Your task to perform on an android device: turn off improve location accuracy Image 0: 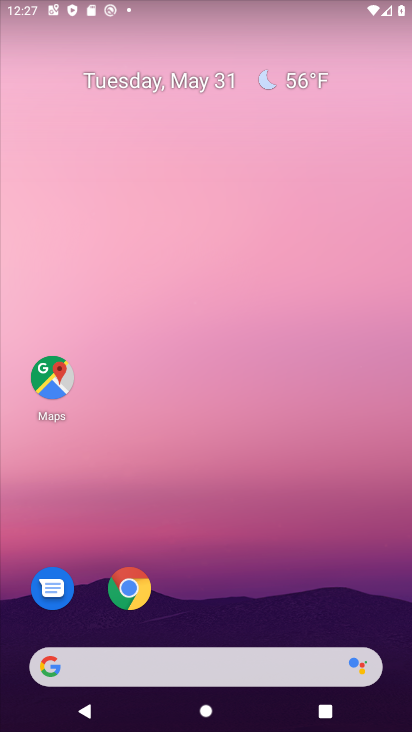
Step 0: drag from (199, 622) to (227, 40)
Your task to perform on an android device: turn off improve location accuracy Image 1: 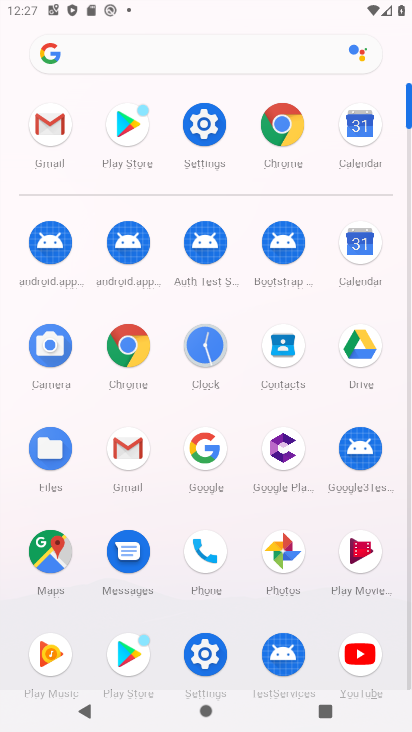
Step 1: click (202, 145)
Your task to perform on an android device: turn off improve location accuracy Image 2: 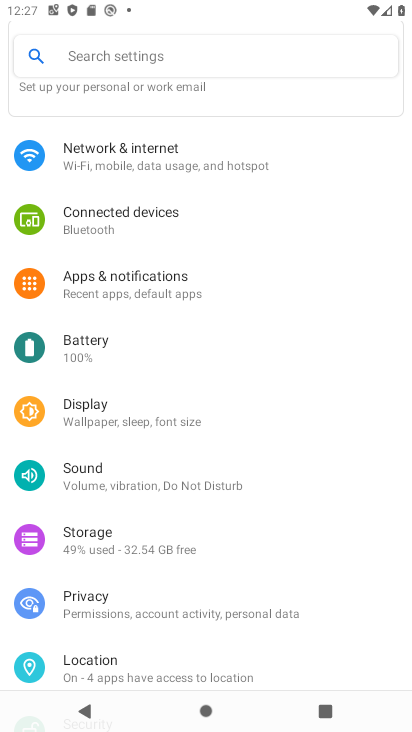
Step 2: drag from (131, 620) to (151, 291)
Your task to perform on an android device: turn off improve location accuracy Image 3: 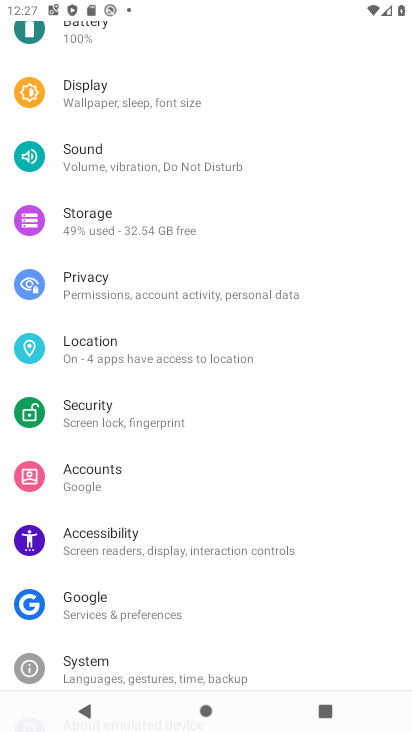
Step 3: click (90, 360)
Your task to perform on an android device: turn off improve location accuracy Image 4: 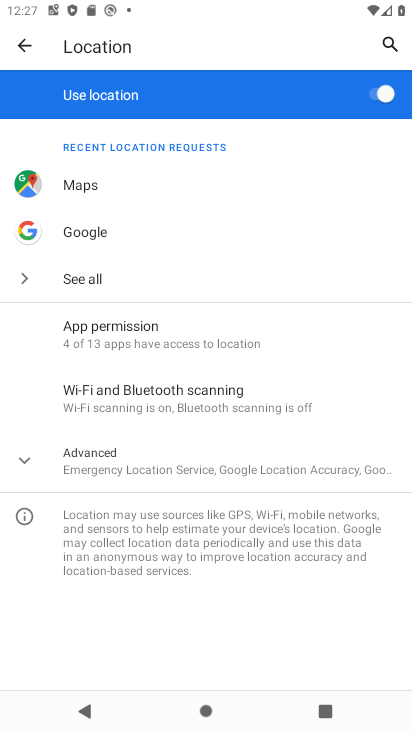
Step 4: click (68, 465)
Your task to perform on an android device: turn off improve location accuracy Image 5: 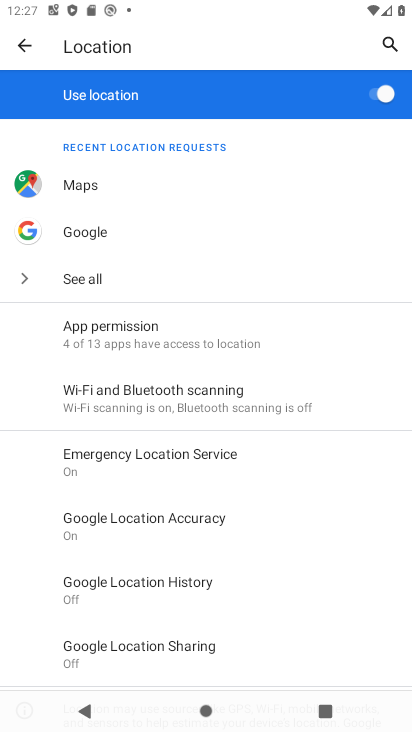
Step 5: click (122, 535)
Your task to perform on an android device: turn off improve location accuracy Image 6: 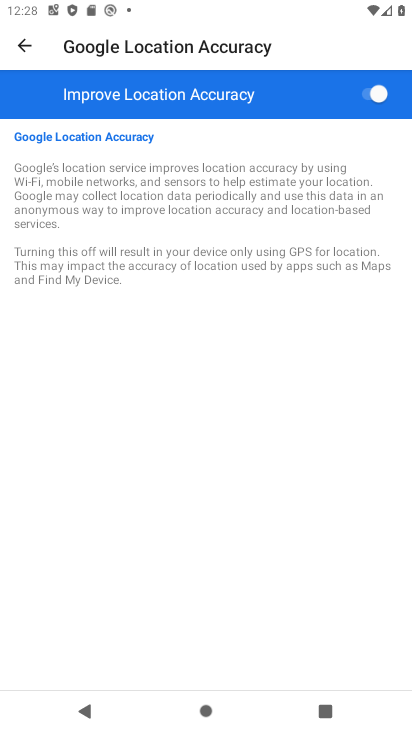
Step 6: click (357, 100)
Your task to perform on an android device: turn off improve location accuracy Image 7: 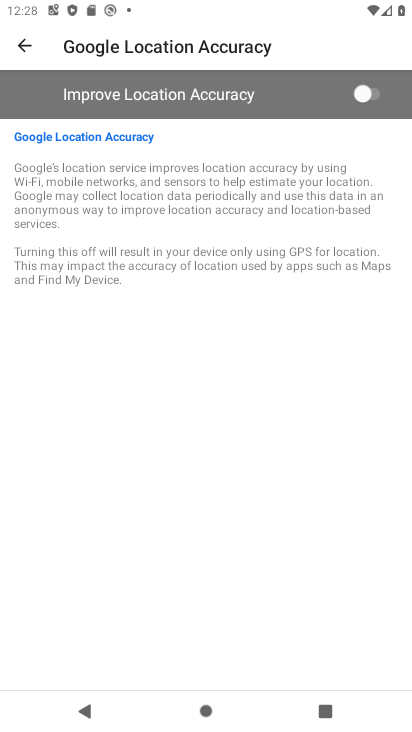
Step 7: task complete